Your task to perform on an android device: turn off picture-in-picture Image 0: 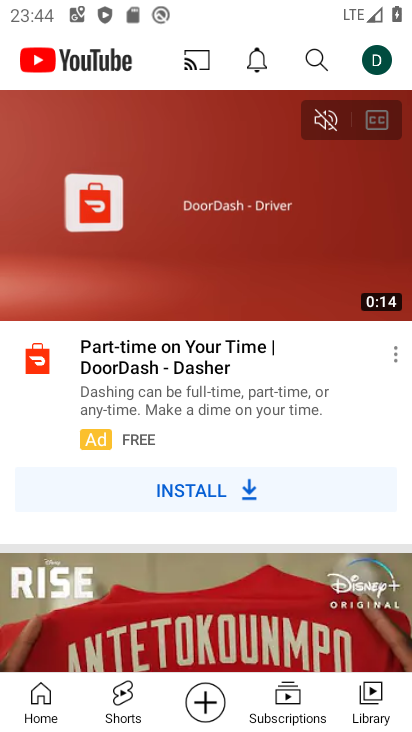
Step 0: press home button
Your task to perform on an android device: turn off picture-in-picture Image 1: 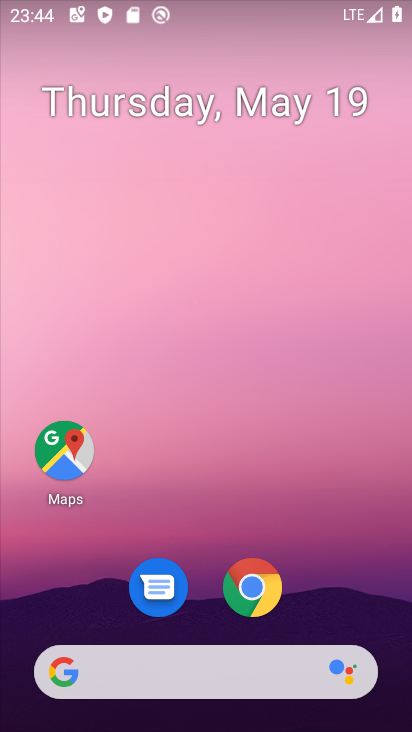
Step 1: drag from (229, 704) to (273, 335)
Your task to perform on an android device: turn off picture-in-picture Image 2: 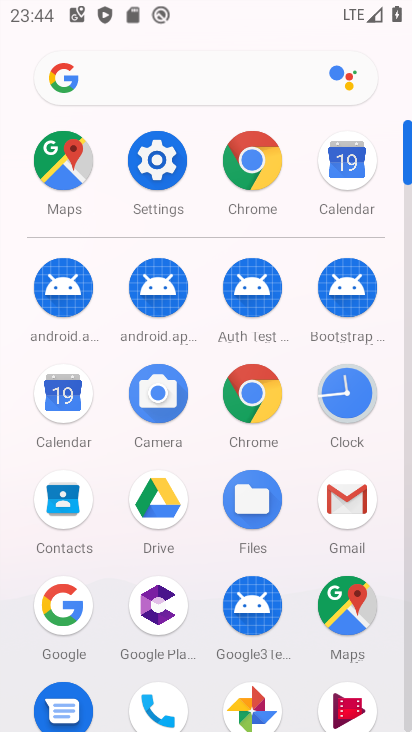
Step 2: click (155, 152)
Your task to perform on an android device: turn off picture-in-picture Image 3: 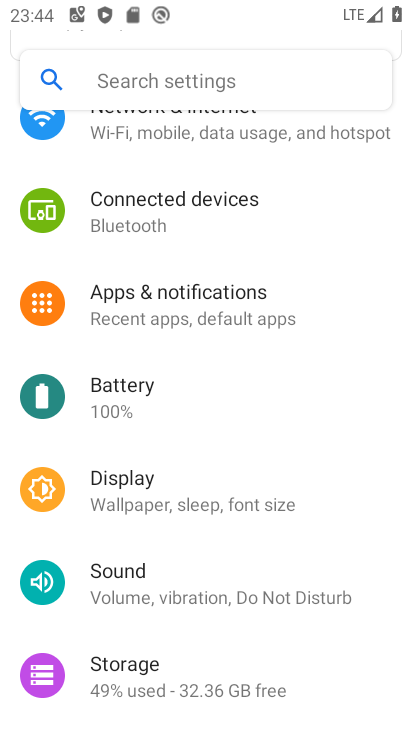
Step 3: click (161, 87)
Your task to perform on an android device: turn off picture-in-picture Image 4: 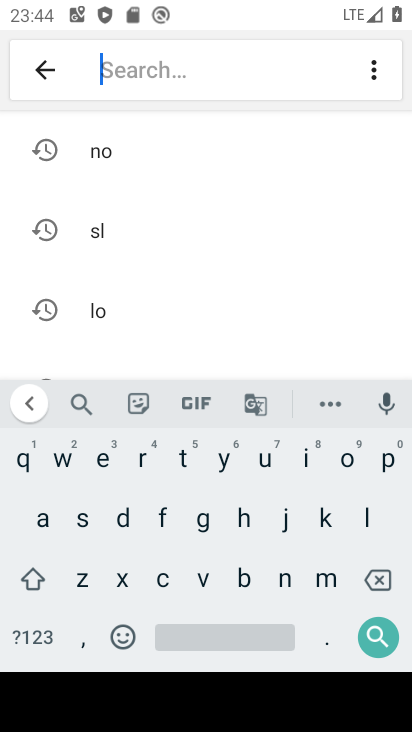
Step 4: click (377, 464)
Your task to perform on an android device: turn off picture-in-picture Image 5: 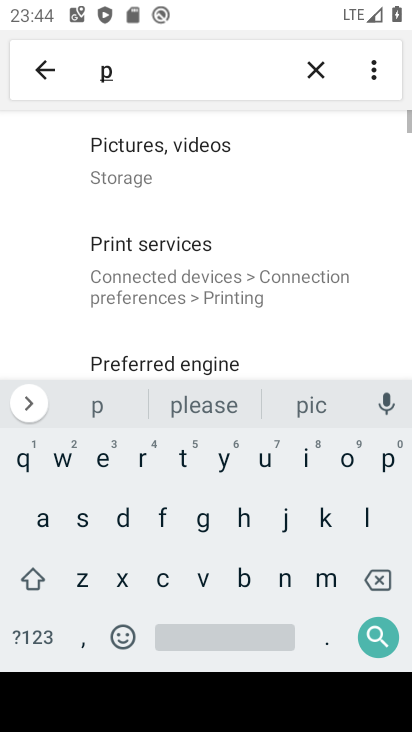
Step 5: click (309, 473)
Your task to perform on an android device: turn off picture-in-picture Image 6: 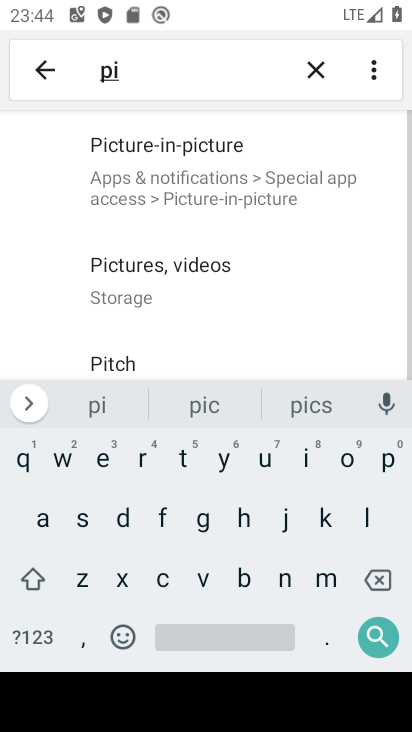
Step 6: click (164, 178)
Your task to perform on an android device: turn off picture-in-picture Image 7: 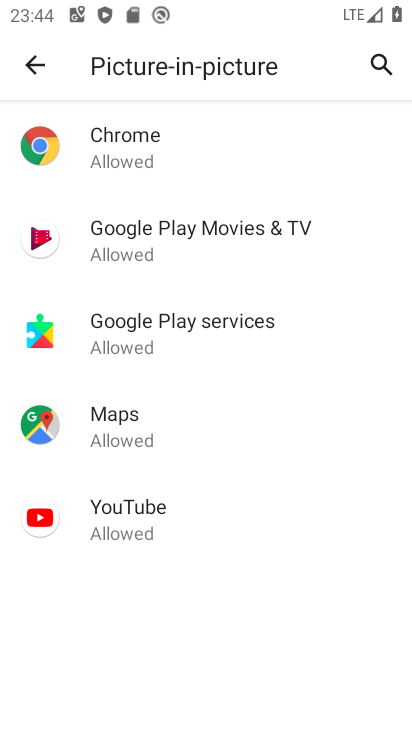
Step 7: task complete